Your task to perform on an android device: turn on the 24-hour format for clock Image 0: 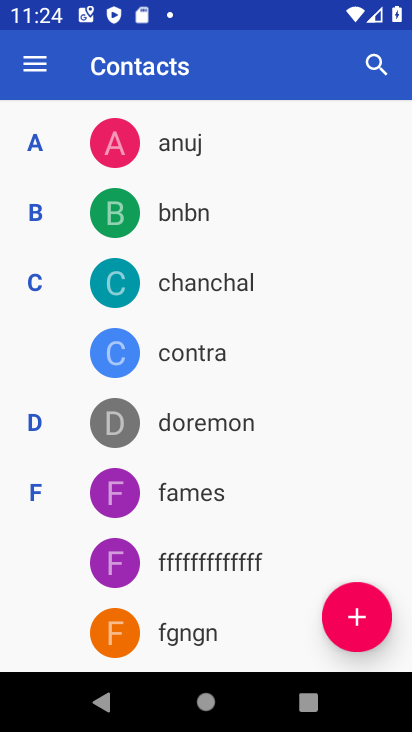
Step 0: press home button
Your task to perform on an android device: turn on the 24-hour format for clock Image 1: 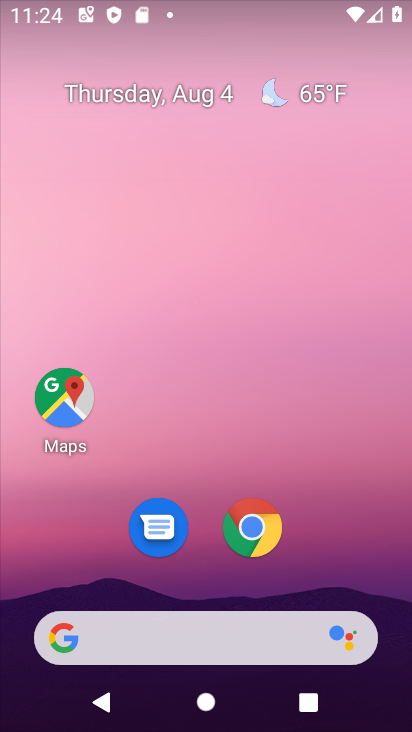
Step 1: drag from (279, 686) to (360, 75)
Your task to perform on an android device: turn on the 24-hour format for clock Image 2: 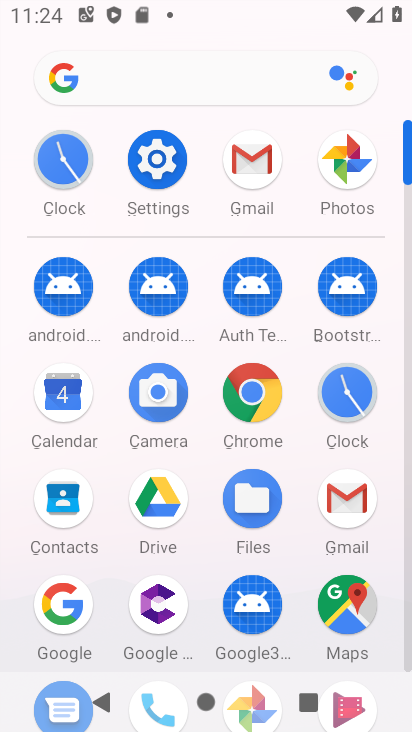
Step 2: click (140, 169)
Your task to perform on an android device: turn on the 24-hour format for clock Image 3: 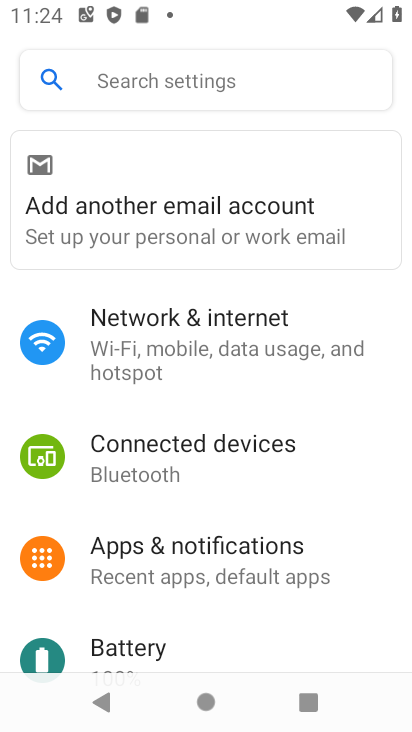
Step 3: press home button
Your task to perform on an android device: turn on the 24-hour format for clock Image 4: 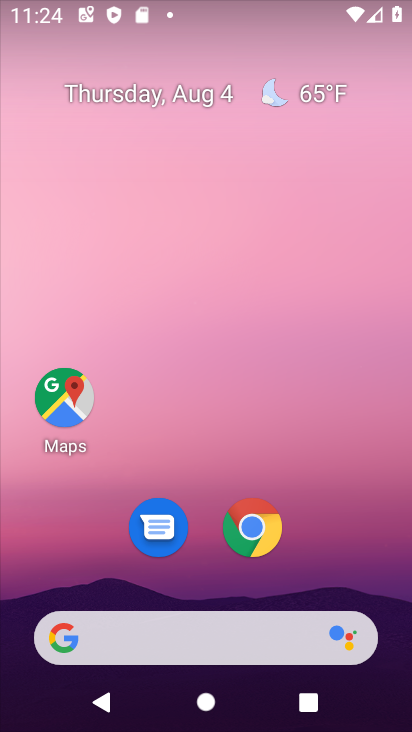
Step 4: drag from (263, 692) to (341, 180)
Your task to perform on an android device: turn on the 24-hour format for clock Image 5: 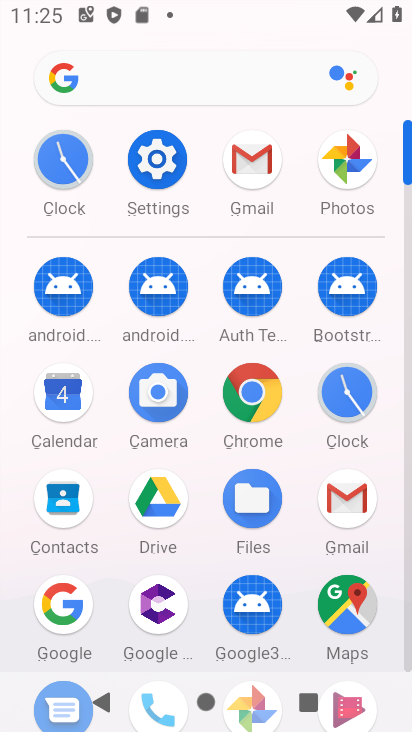
Step 5: click (332, 381)
Your task to perform on an android device: turn on the 24-hour format for clock Image 6: 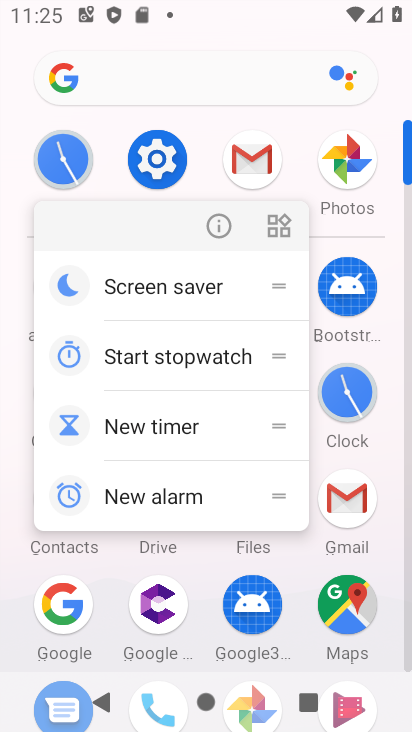
Step 6: click (349, 401)
Your task to perform on an android device: turn on the 24-hour format for clock Image 7: 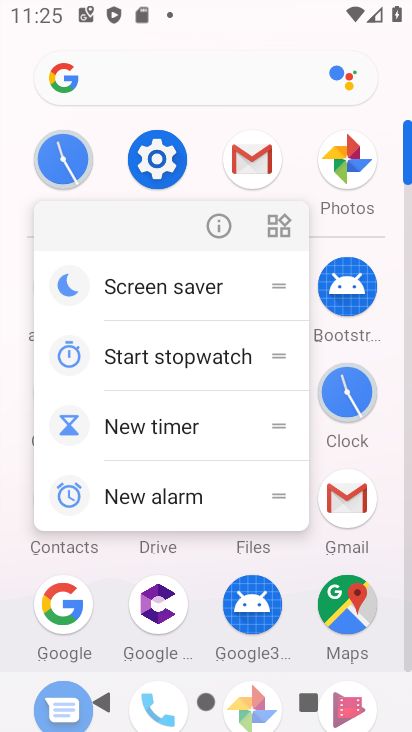
Step 7: click (349, 401)
Your task to perform on an android device: turn on the 24-hour format for clock Image 8: 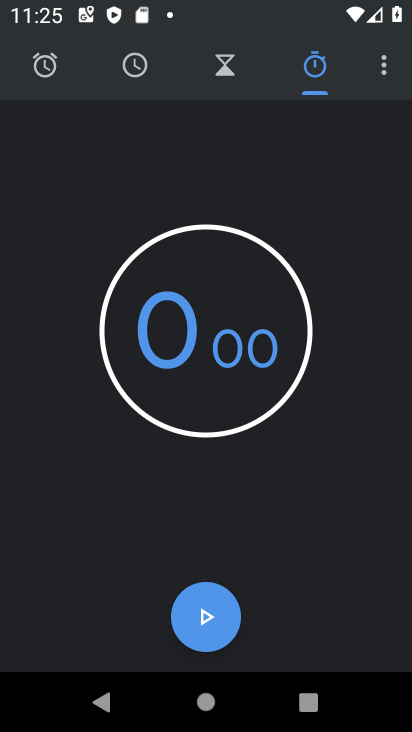
Step 8: click (383, 71)
Your task to perform on an android device: turn on the 24-hour format for clock Image 9: 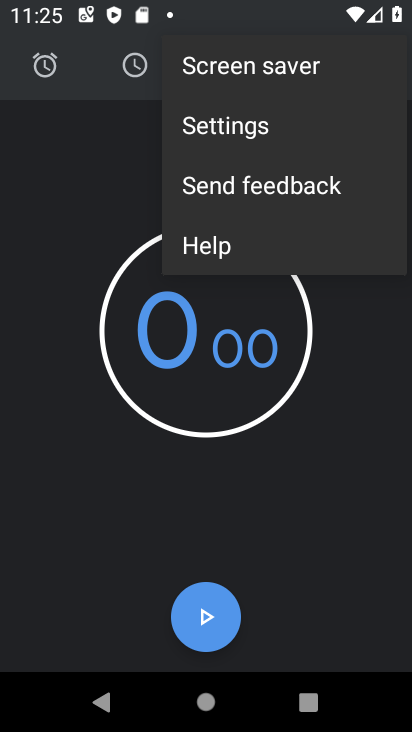
Step 9: click (302, 129)
Your task to perform on an android device: turn on the 24-hour format for clock Image 10: 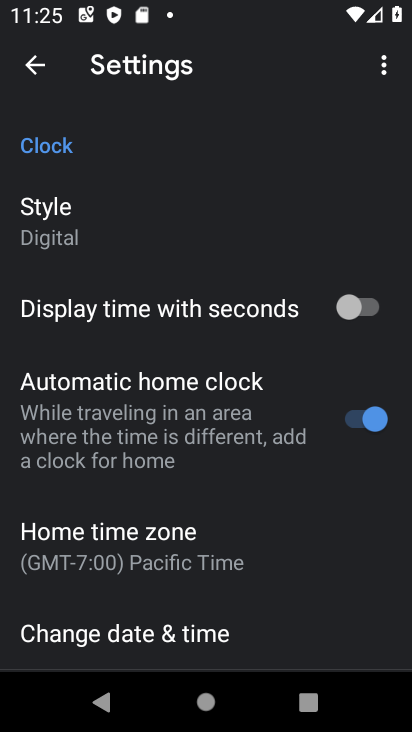
Step 10: click (232, 642)
Your task to perform on an android device: turn on the 24-hour format for clock Image 11: 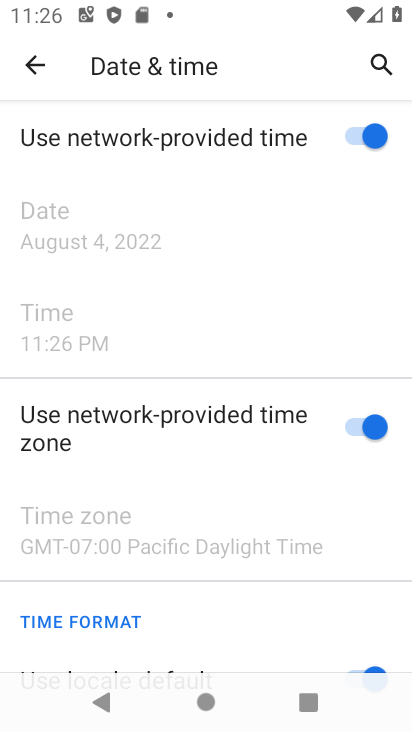
Step 11: drag from (168, 599) to (244, 218)
Your task to perform on an android device: turn on the 24-hour format for clock Image 12: 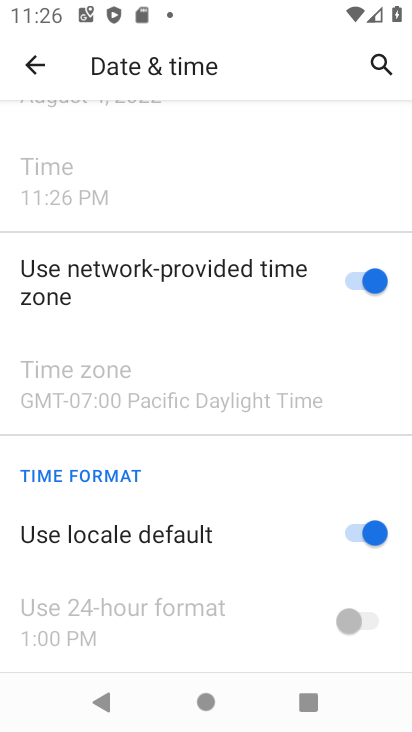
Step 12: click (358, 532)
Your task to perform on an android device: turn on the 24-hour format for clock Image 13: 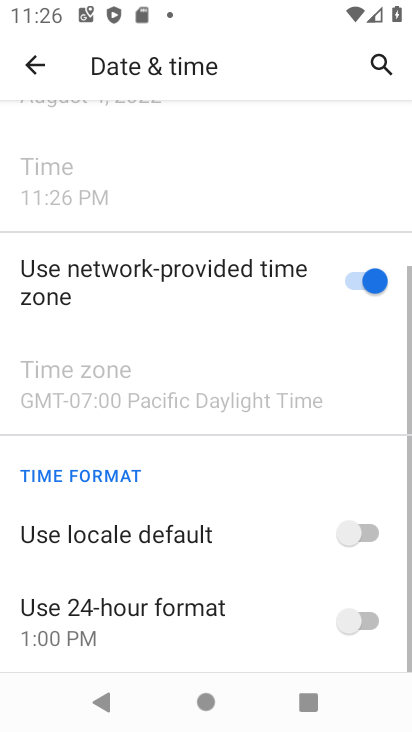
Step 13: click (354, 626)
Your task to perform on an android device: turn on the 24-hour format for clock Image 14: 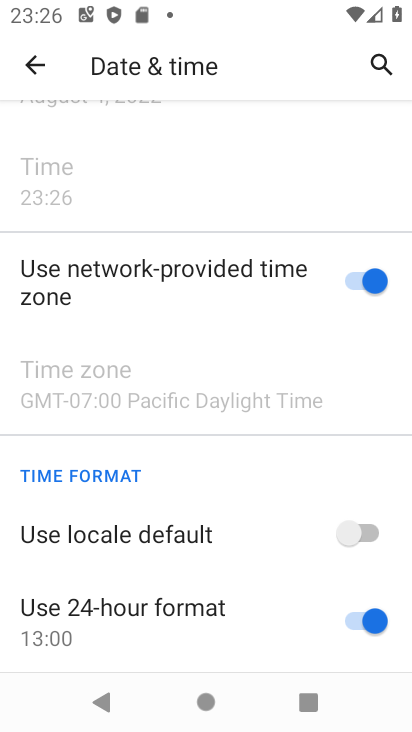
Step 14: task complete